Your task to perform on an android device: check out phone information Image 0: 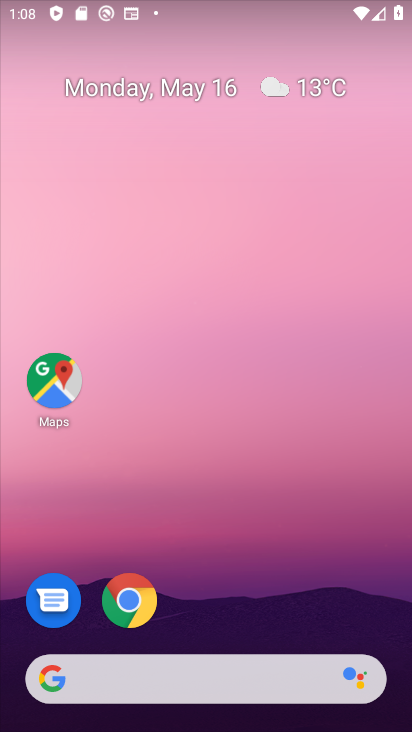
Step 0: drag from (222, 587) to (109, 84)
Your task to perform on an android device: check out phone information Image 1: 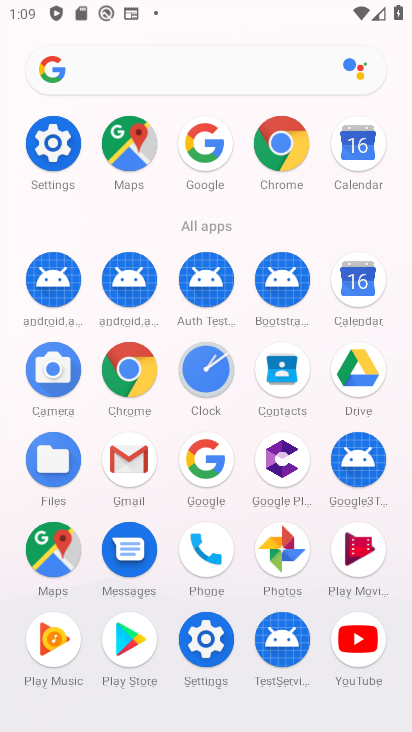
Step 1: click (213, 546)
Your task to perform on an android device: check out phone information Image 2: 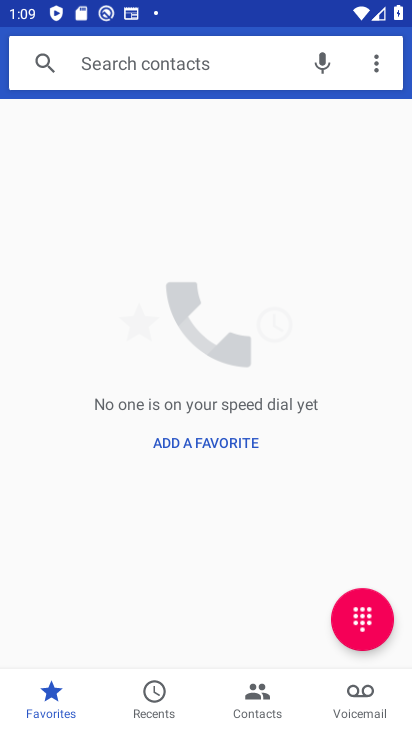
Step 2: click (373, 52)
Your task to perform on an android device: check out phone information Image 3: 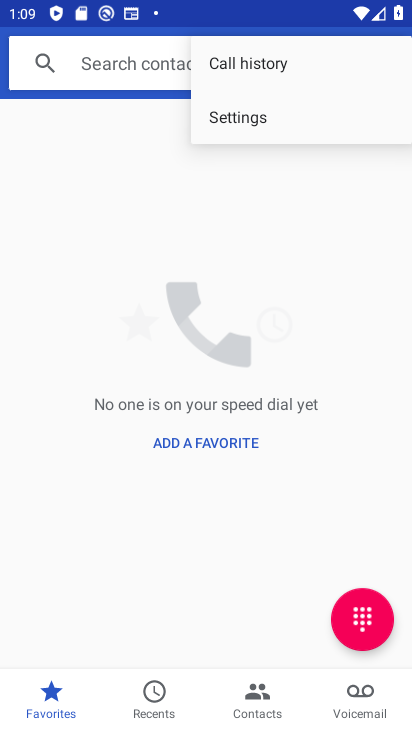
Step 3: click (232, 113)
Your task to perform on an android device: check out phone information Image 4: 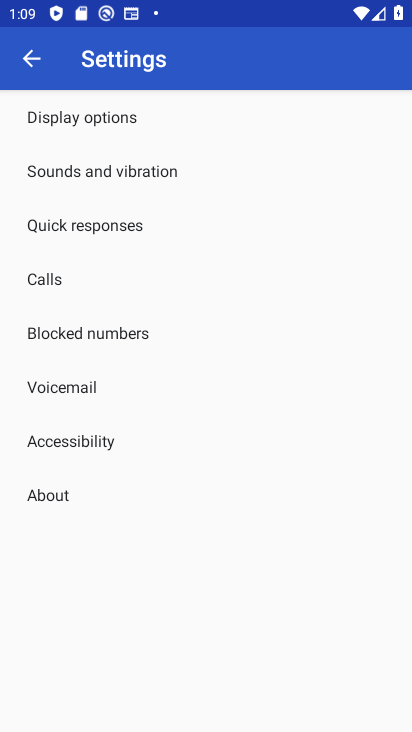
Step 4: click (45, 497)
Your task to perform on an android device: check out phone information Image 5: 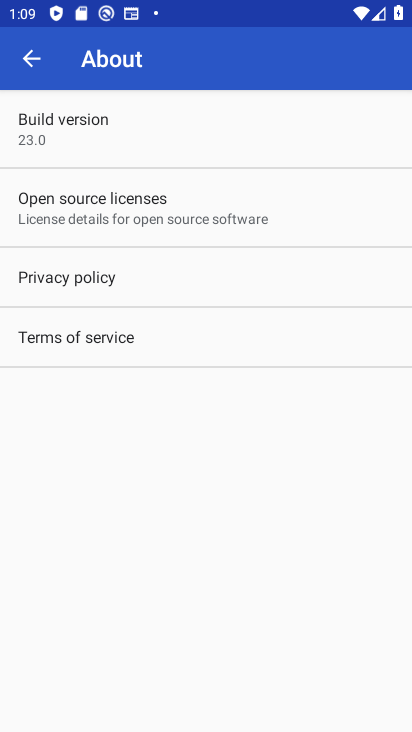
Step 5: task complete